Your task to perform on an android device: add a contact in the contacts app Image 0: 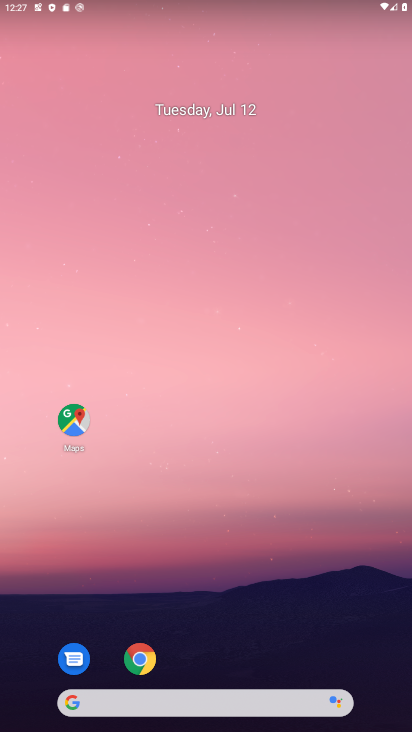
Step 0: drag from (220, 721) to (240, 44)
Your task to perform on an android device: add a contact in the contacts app Image 1: 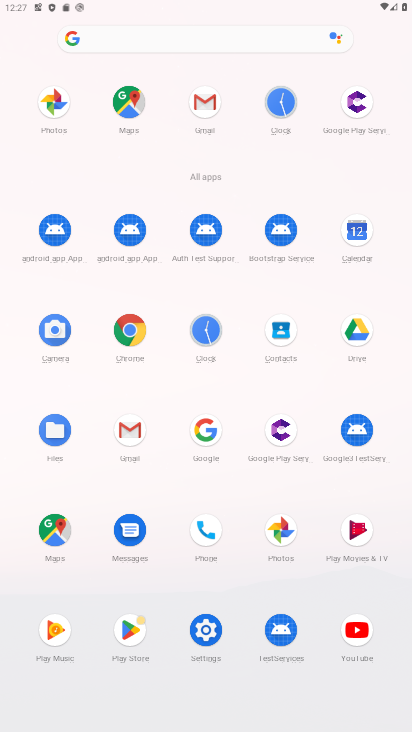
Step 1: click (354, 236)
Your task to perform on an android device: add a contact in the contacts app Image 2: 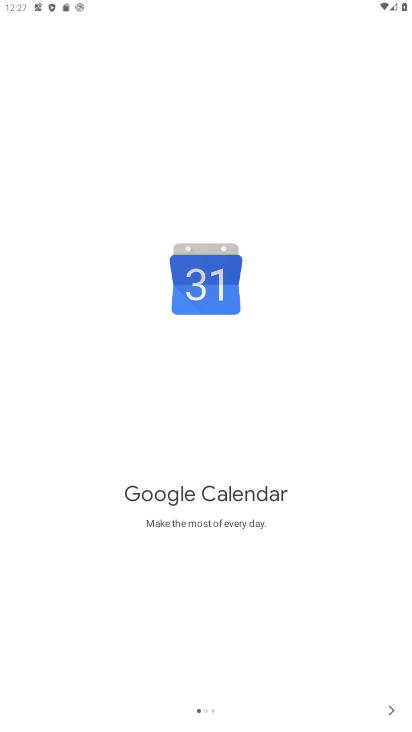
Step 2: press back button
Your task to perform on an android device: add a contact in the contacts app Image 3: 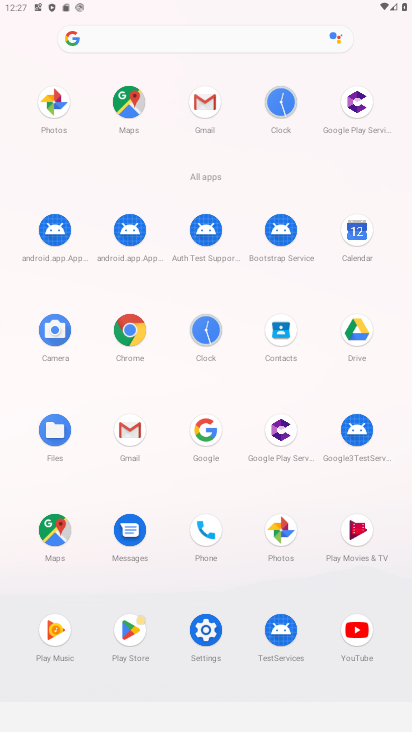
Step 3: click (283, 334)
Your task to perform on an android device: add a contact in the contacts app Image 4: 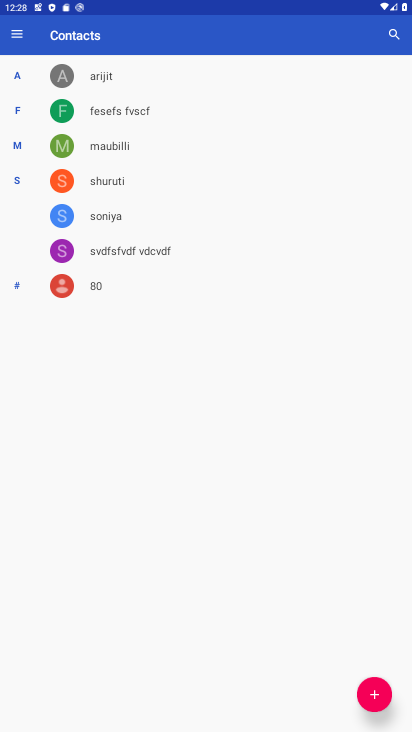
Step 4: click (375, 697)
Your task to perform on an android device: add a contact in the contacts app Image 5: 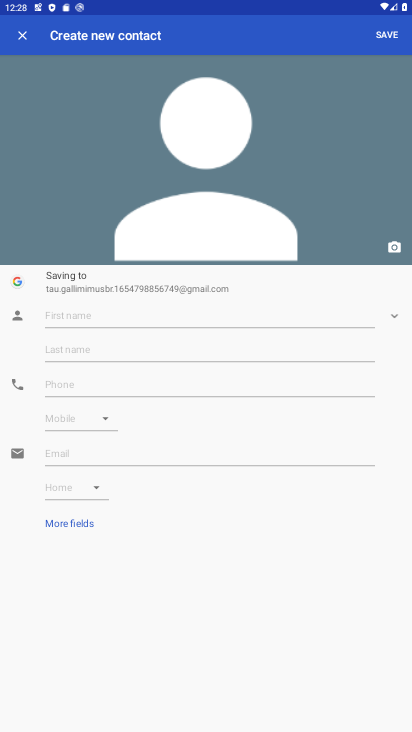
Step 5: click (234, 318)
Your task to perform on an android device: add a contact in the contacts app Image 6: 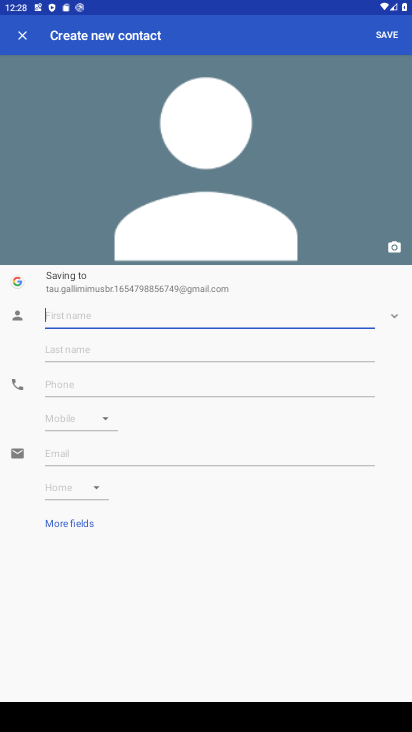
Step 6: type "vikrmaditya"
Your task to perform on an android device: add a contact in the contacts app Image 7: 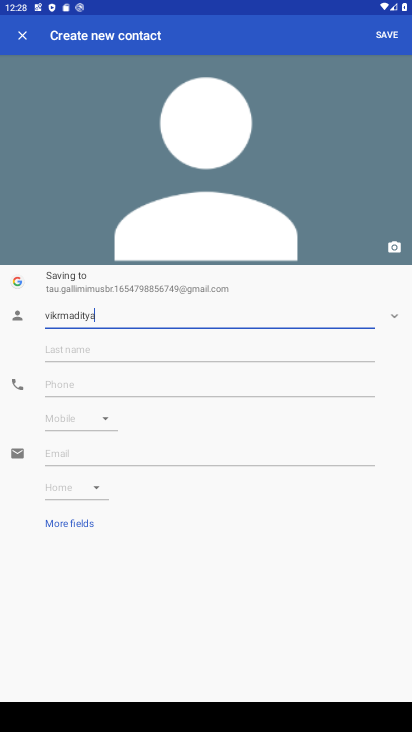
Step 7: click (100, 382)
Your task to perform on an android device: add a contact in the contacts app Image 8: 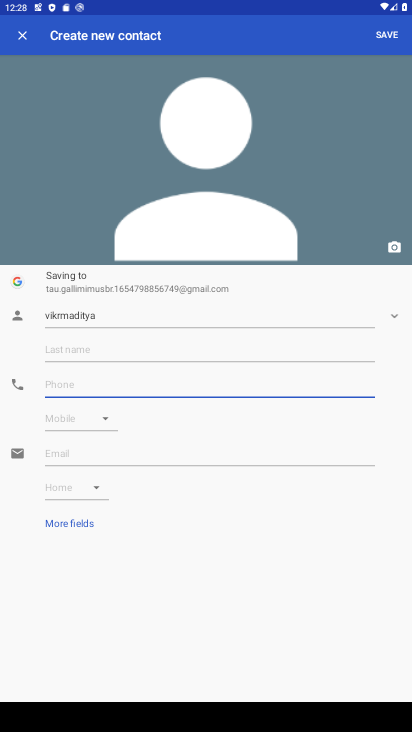
Step 8: type "456789"
Your task to perform on an android device: add a contact in the contacts app Image 9: 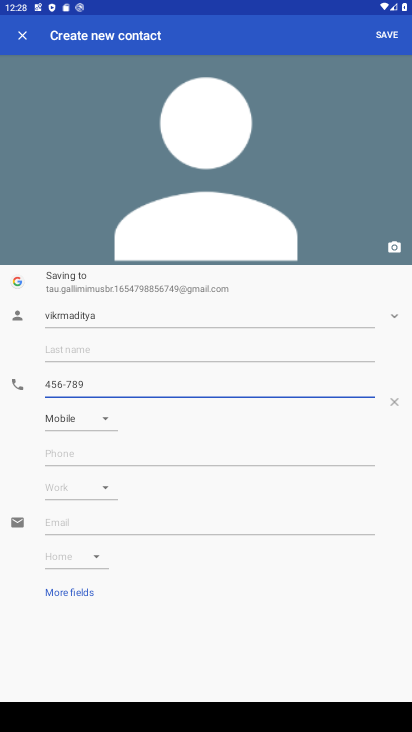
Step 9: click (387, 30)
Your task to perform on an android device: add a contact in the contacts app Image 10: 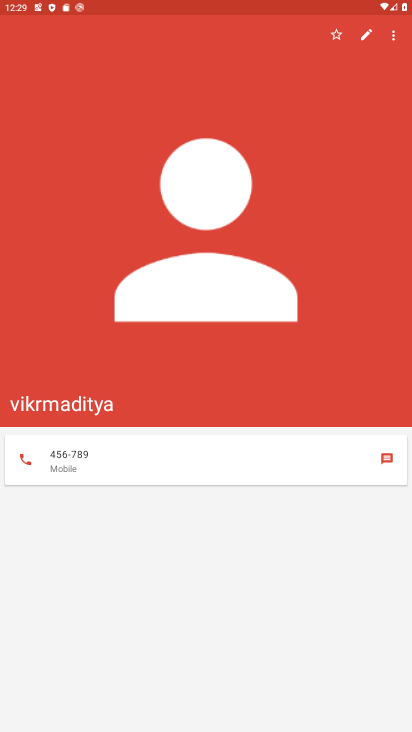
Step 10: task complete